Your task to perform on an android device: Show me productivity apps on the Play Store Image 0: 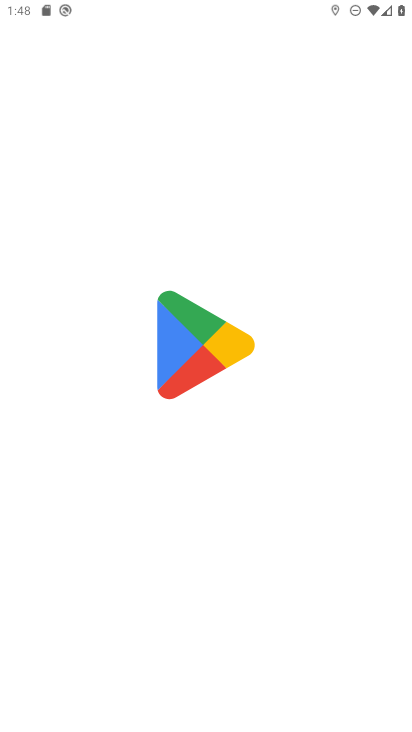
Step 0: press home button
Your task to perform on an android device: Show me productivity apps on the Play Store Image 1: 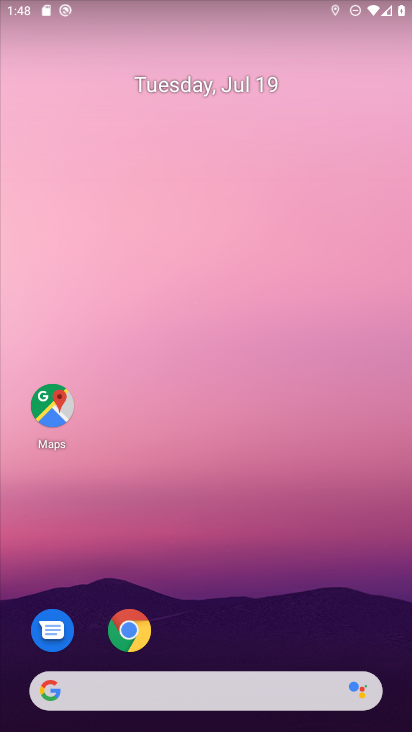
Step 1: drag from (186, 687) to (301, 52)
Your task to perform on an android device: Show me productivity apps on the Play Store Image 2: 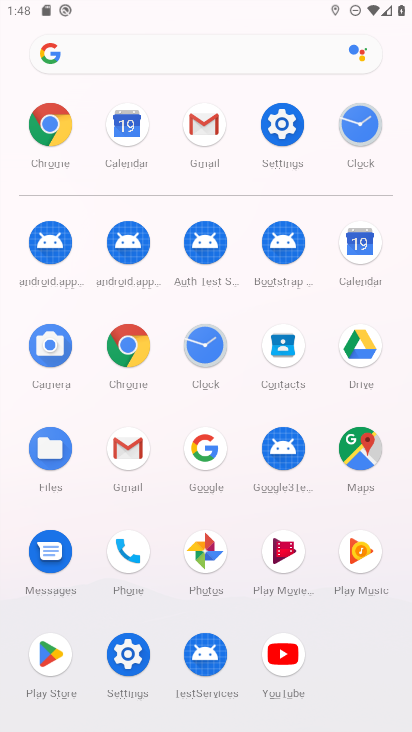
Step 2: click (53, 658)
Your task to perform on an android device: Show me productivity apps on the Play Store Image 3: 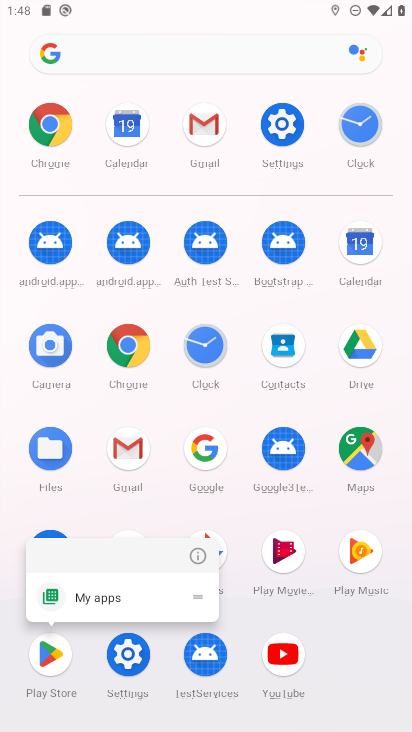
Step 3: click (48, 658)
Your task to perform on an android device: Show me productivity apps on the Play Store Image 4: 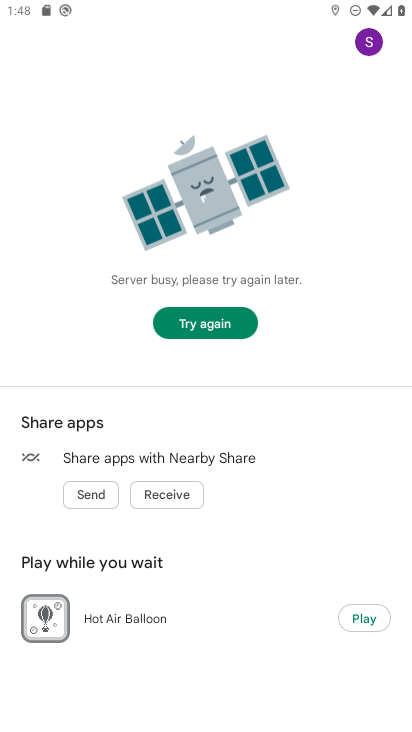
Step 4: click (208, 318)
Your task to perform on an android device: Show me productivity apps on the Play Store Image 5: 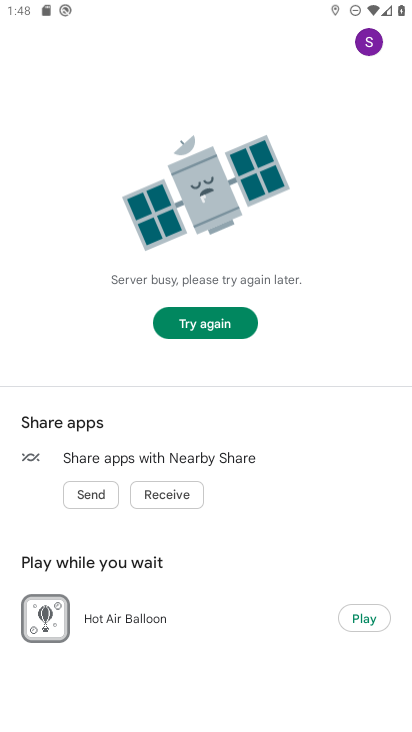
Step 5: click (209, 318)
Your task to perform on an android device: Show me productivity apps on the Play Store Image 6: 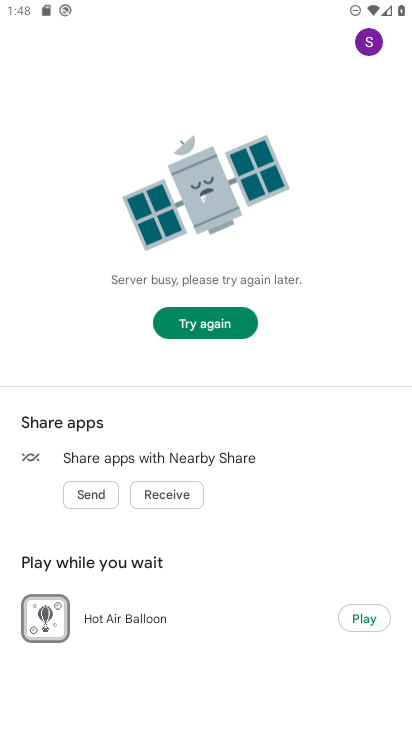
Step 6: task complete